Your task to perform on an android device: toggle location history Image 0: 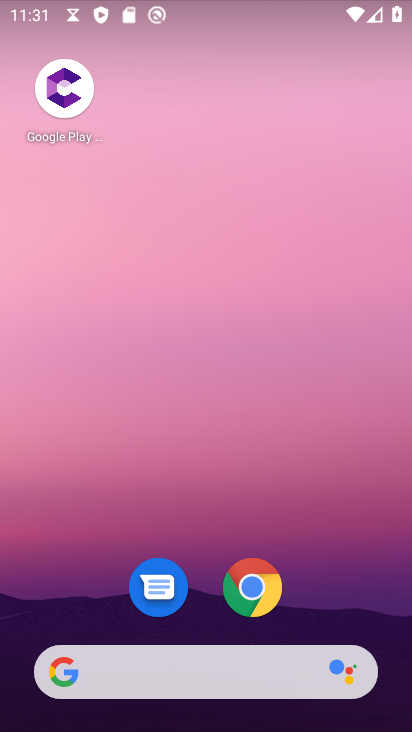
Step 0: drag from (92, 442) to (195, 80)
Your task to perform on an android device: toggle location history Image 1: 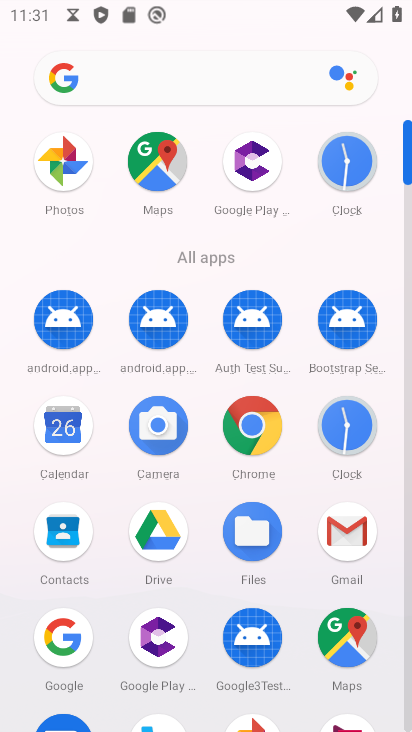
Step 1: click (159, 630)
Your task to perform on an android device: toggle location history Image 2: 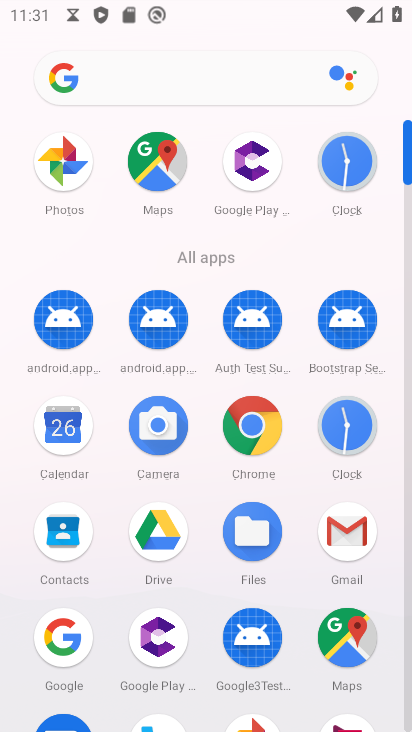
Step 2: drag from (147, 668) to (249, 349)
Your task to perform on an android device: toggle location history Image 3: 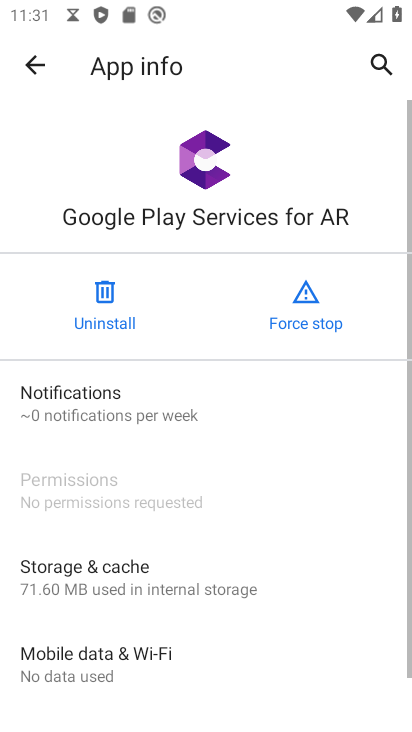
Step 3: press back button
Your task to perform on an android device: toggle location history Image 4: 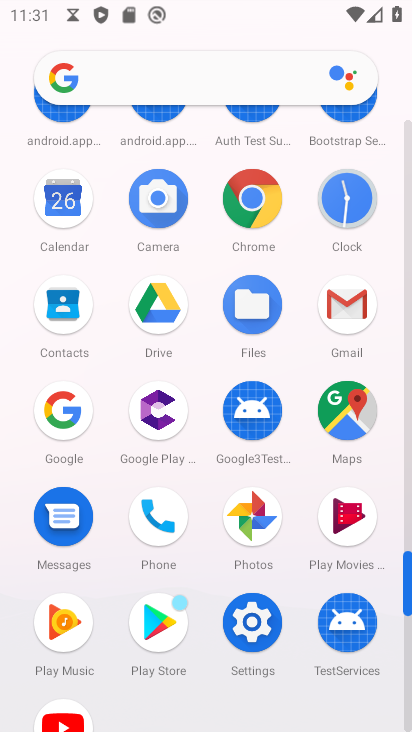
Step 4: click (265, 625)
Your task to perform on an android device: toggle location history Image 5: 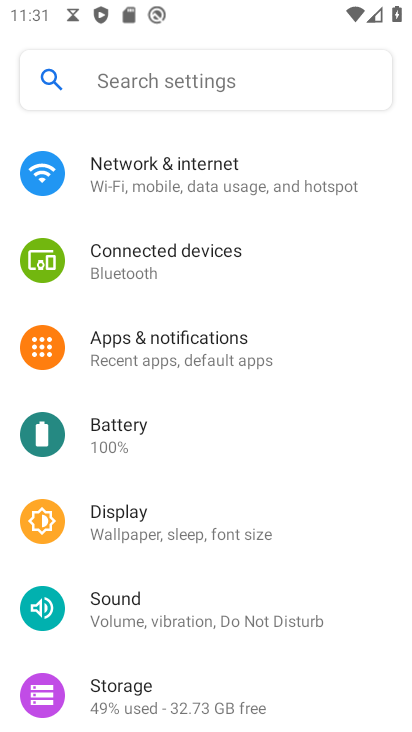
Step 5: drag from (207, 679) to (318, 260)
Your task to perform on an android device: toggle location history Image 6: 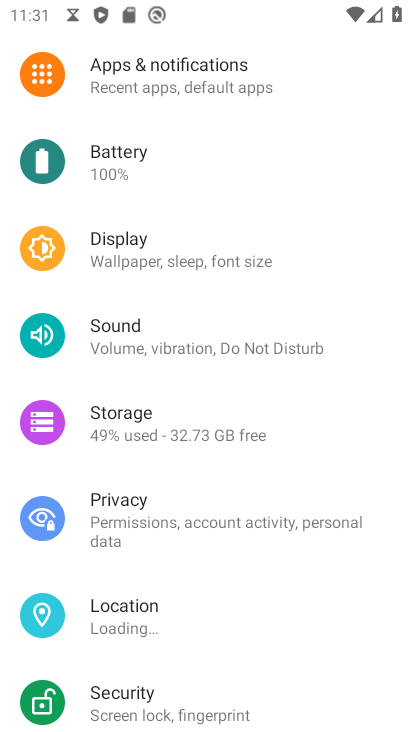
Step 6: click (199, 615)
Your task to perform on an android device: toggle location history Image 7: 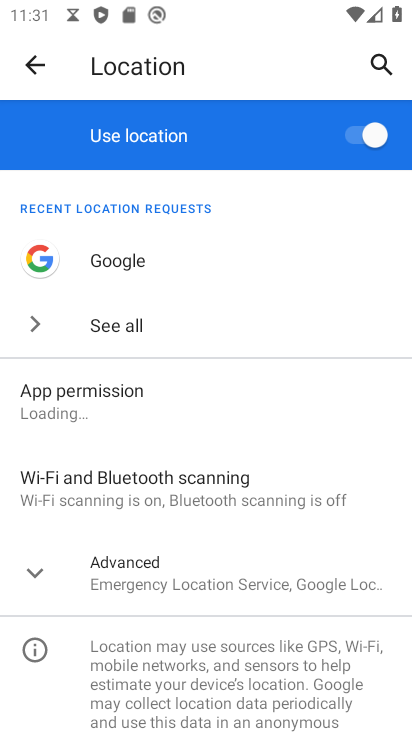
Step 7: click (159, 560)
Your task to perform on an android device: toggle location history Image 8: 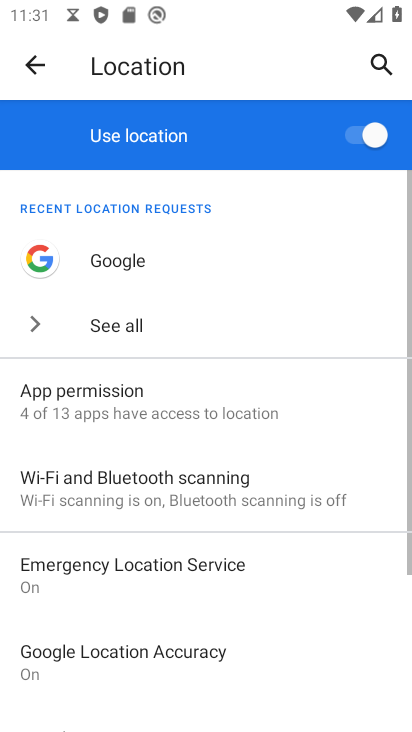
Step 8: drag from (158, 624) to (295, 252)
Your task to perform on an android device: toggle location history Image 9: 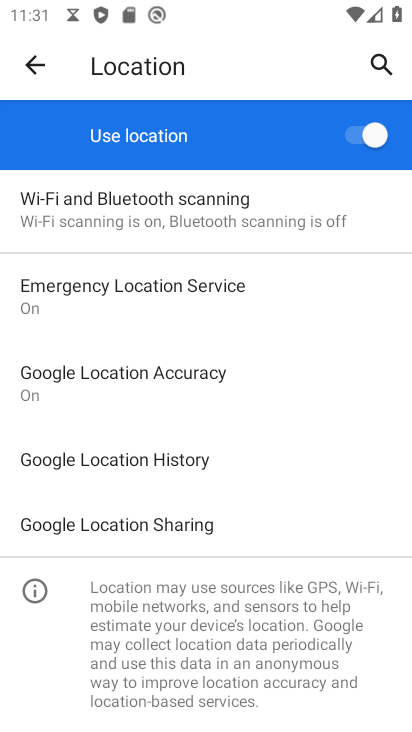
Step 9: click (203, 478)
Your task to perform on an android device: toggle location history Image 10: 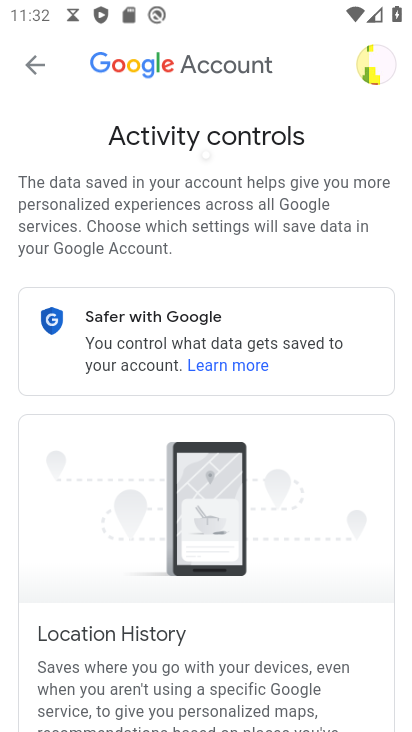
Step 10: drag from (228, 703) to (348, 169)
Your task to perform on an android device: toggle location history Image 11: 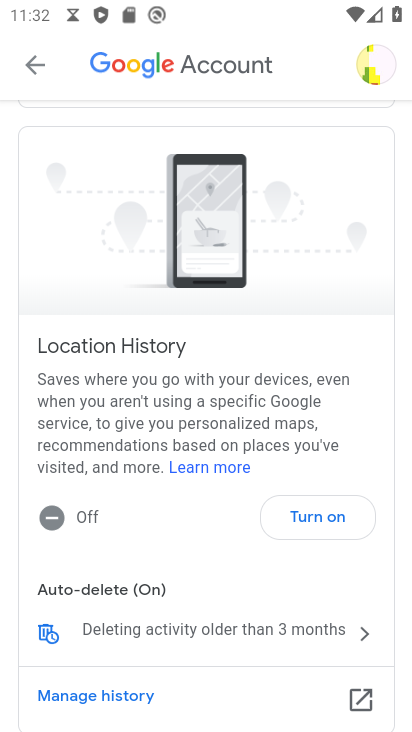
Step 11: click (329, 519)
Your task to perform on an android device: toggle location history Image 12: 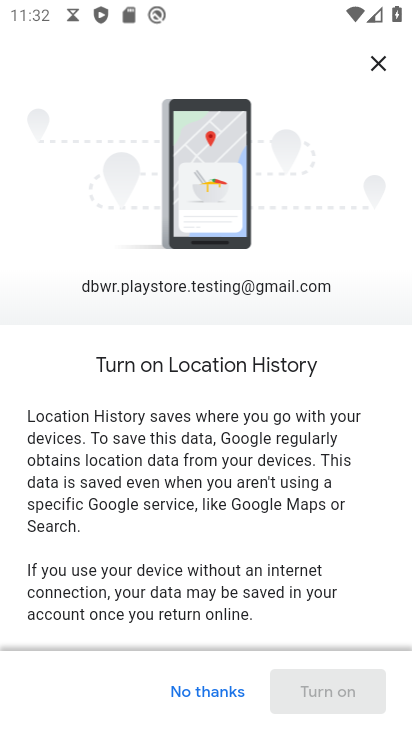
Step 12: drag from (332, 595) to (406, 260)
Your task to perform on an android device: toggle location history Image 13: 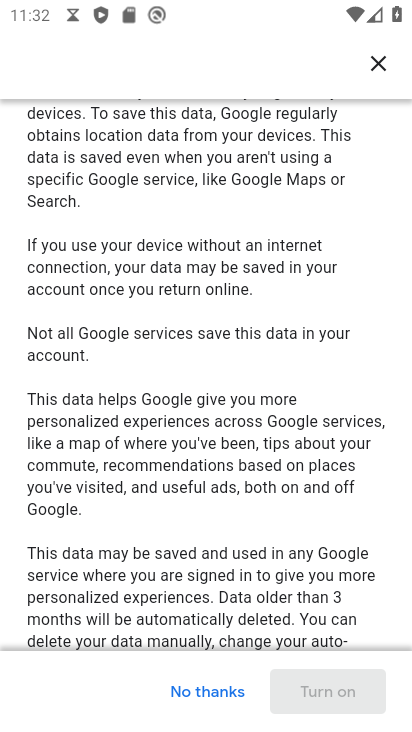
Step 13: drag from (288, 548) to (409, 102)
Your task to perform on an android device: toggle location history Image 14: 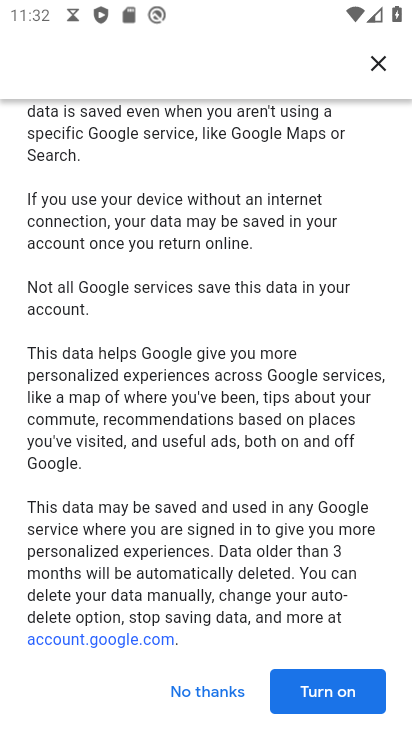
Step 14: drag from (260, 584) to (344, 164)
Your task to perform on an android device: toggle location history Image 15: 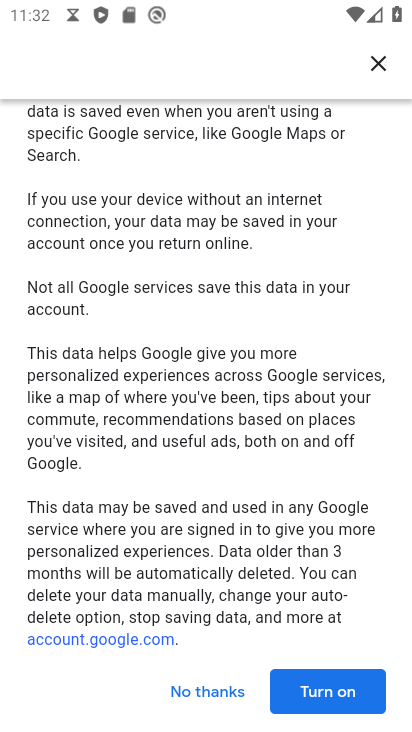
Step 15: drag from (278, 539) to (301, 351)
Your task to perform on an android device: toggle location history Image 16: 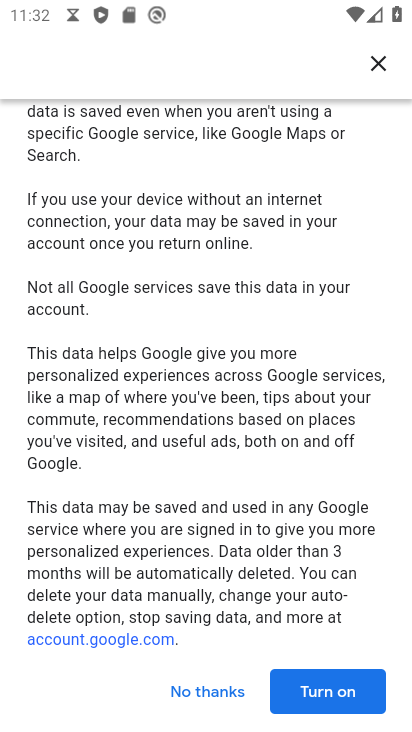
Step 16: click (340, 686)
Your task to perform on an android device: toggle location history Image 17: 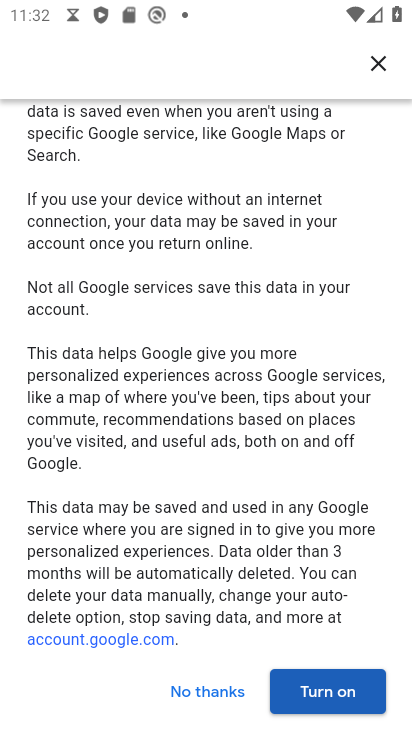
Step 17: click (341, 687)
Your task to perform on an android device: toggle location history Image 18: 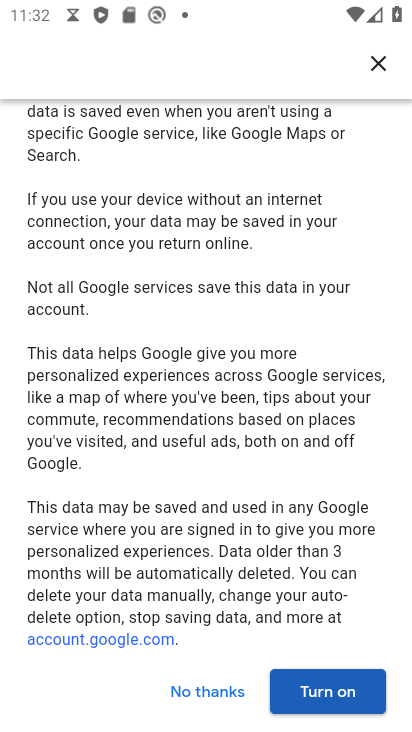
Step 18: click (360, 709)
Your task to perform on an android device: toggle location history Image 19: 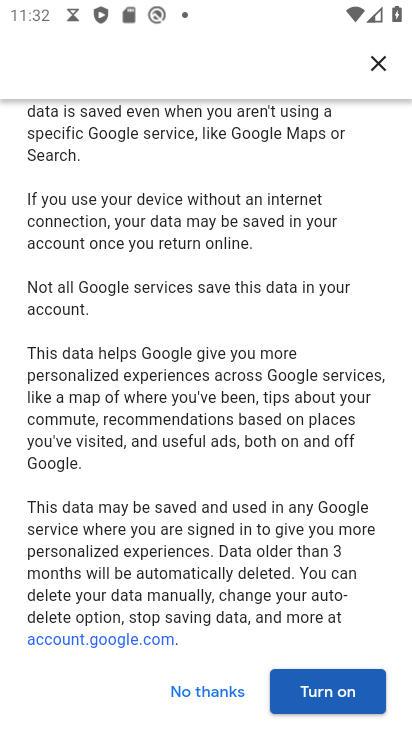
Step 19: click (367, 700)
Your task to perform on an android device: toggle location history Image 20: 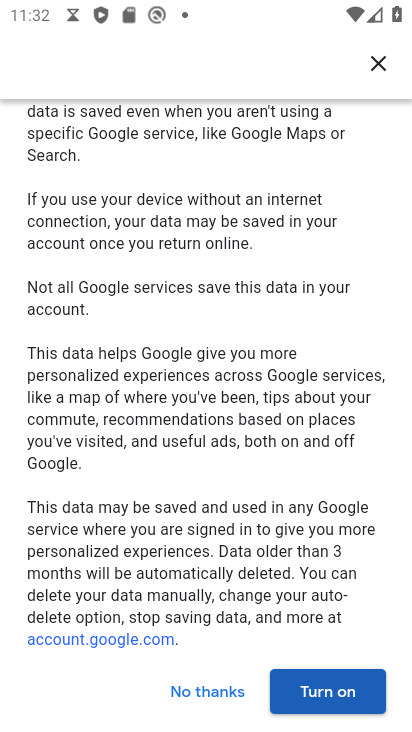
Step 20: click (362, 694)
Your task to perform on an android device: toggle location history Image 21: 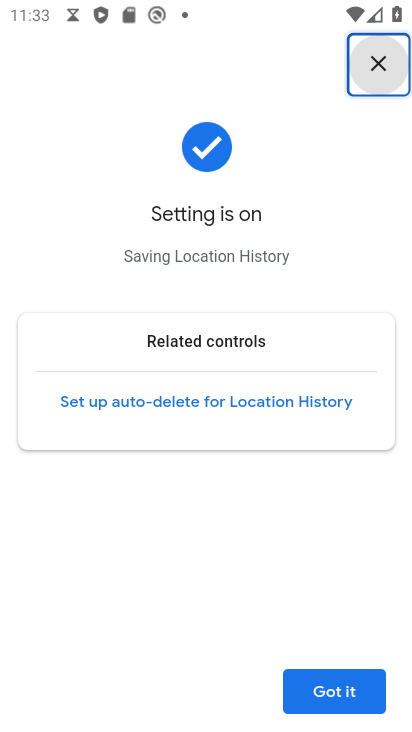
Step 21: click (337, 697)
Your task to perform on an android device: toggle location history Image 22: 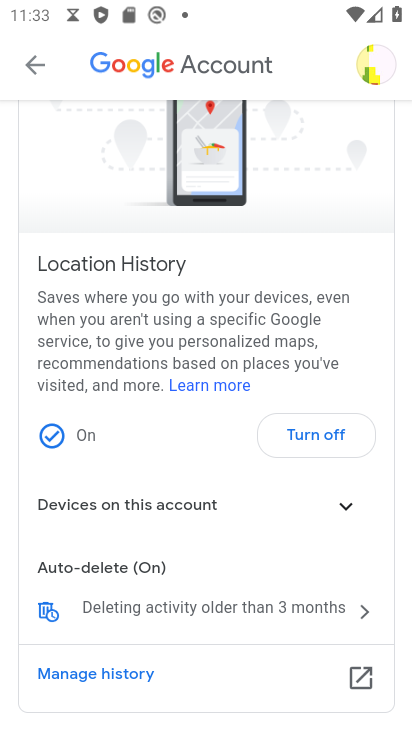
Step 22: task complete